Your task to perform on an android device: toggle sleep mode Image 0: 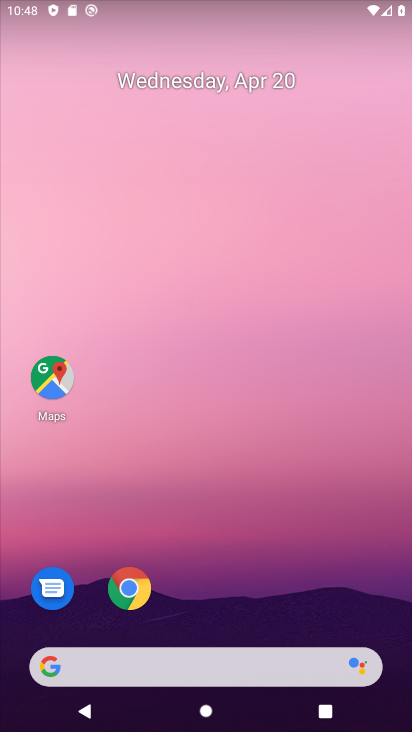
Step 0: drag from (213, 726) to (216, 142)
Your task to perform on an android device: toggle sleep mode Image 1: 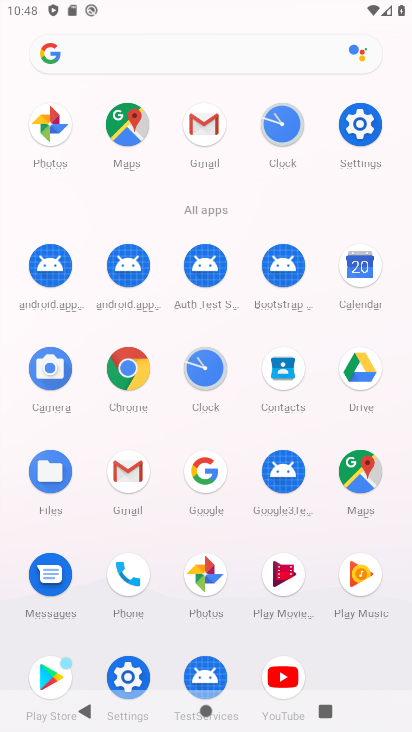
Step 1: click (358, 121)
Your task to perform on an android device: toggle sleep mode Image 2: 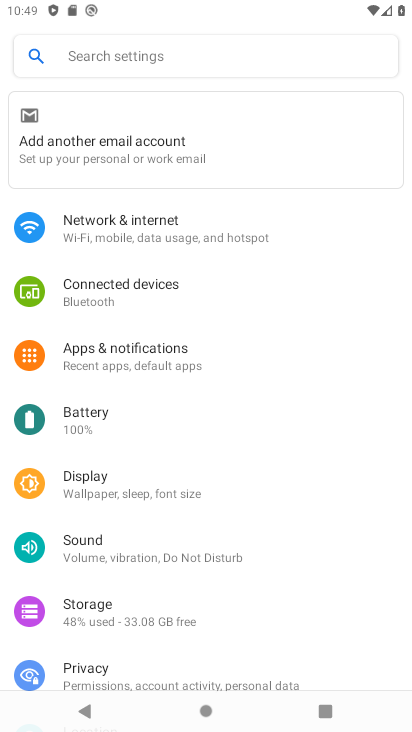
Step 2: click (142, 487)
Your task to perform on an android device: toggle sleep mode Image 3: 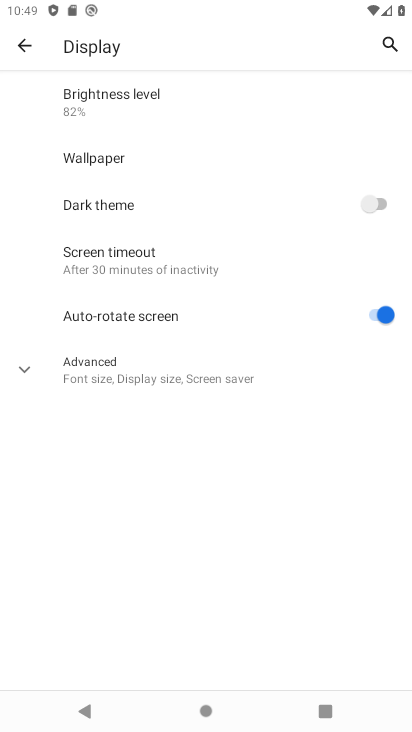
Step 3: task complete